Your task to perform on an android device: Open eBay Image 0: 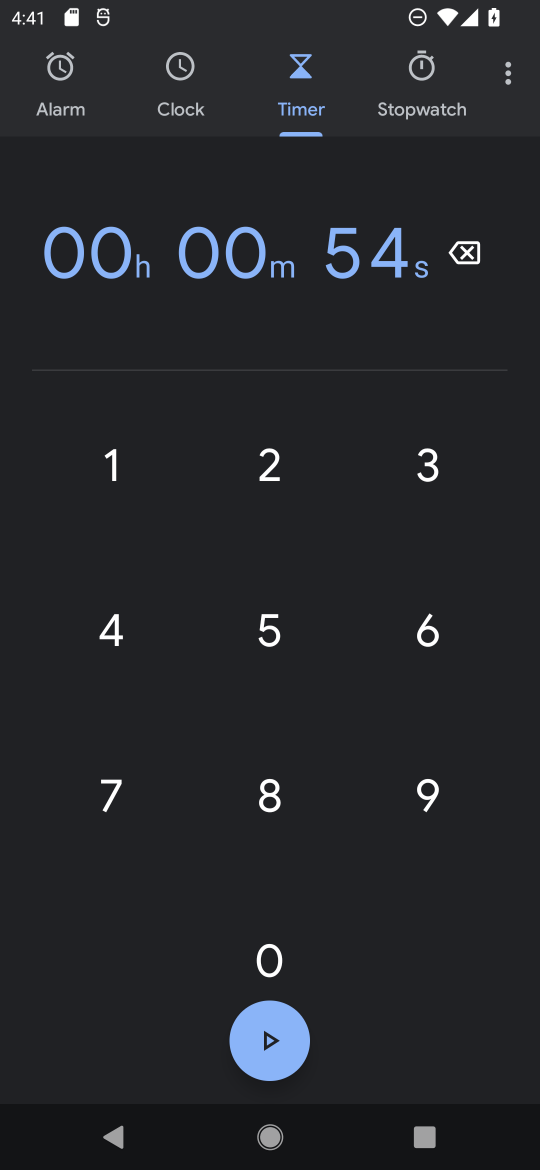
Step 0: press home button
Your task to perform on an android device: Open eBay Image 1: 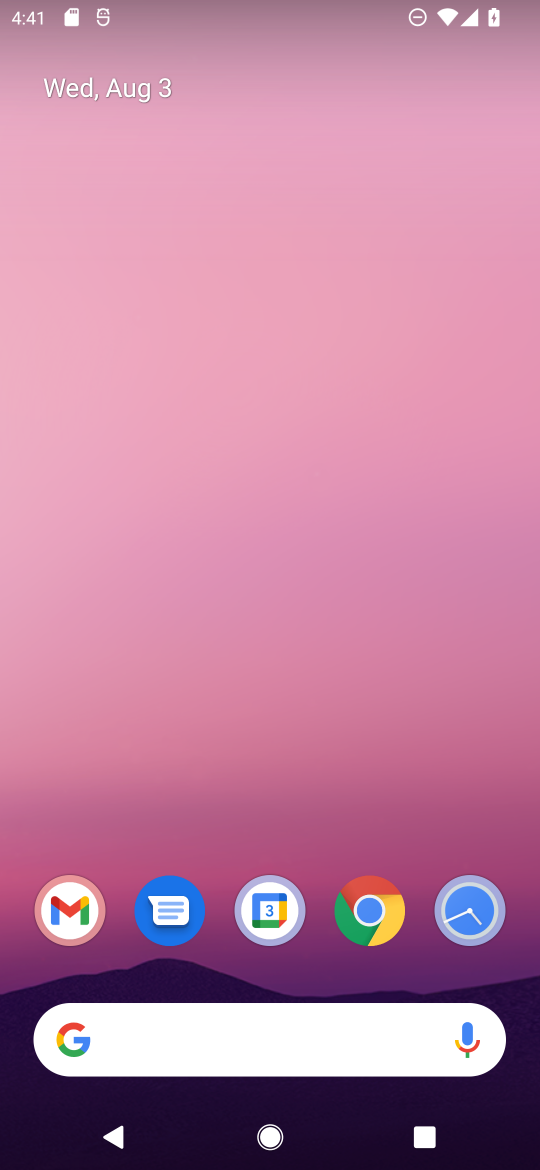
Step 1: click (195, 1050)
Your task to perform on an android device: Open eBay Image 2: 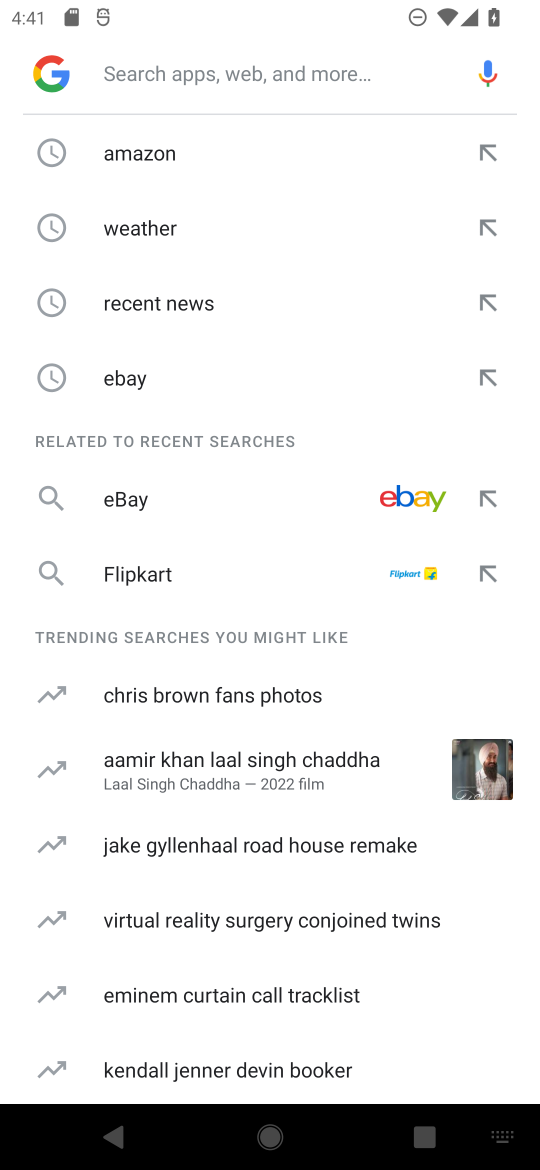
Step 2: type "eBay"
Your task to perform on an android device: Open eBay Image 3: 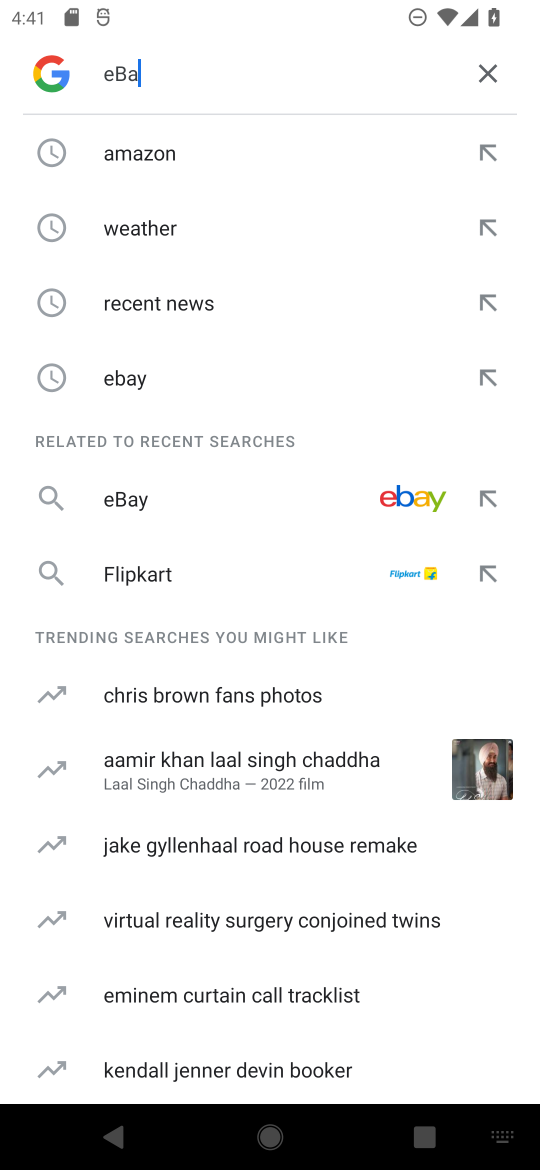
Step 3: type ""
Your task to perform on an android device: Open eBay Image 4: 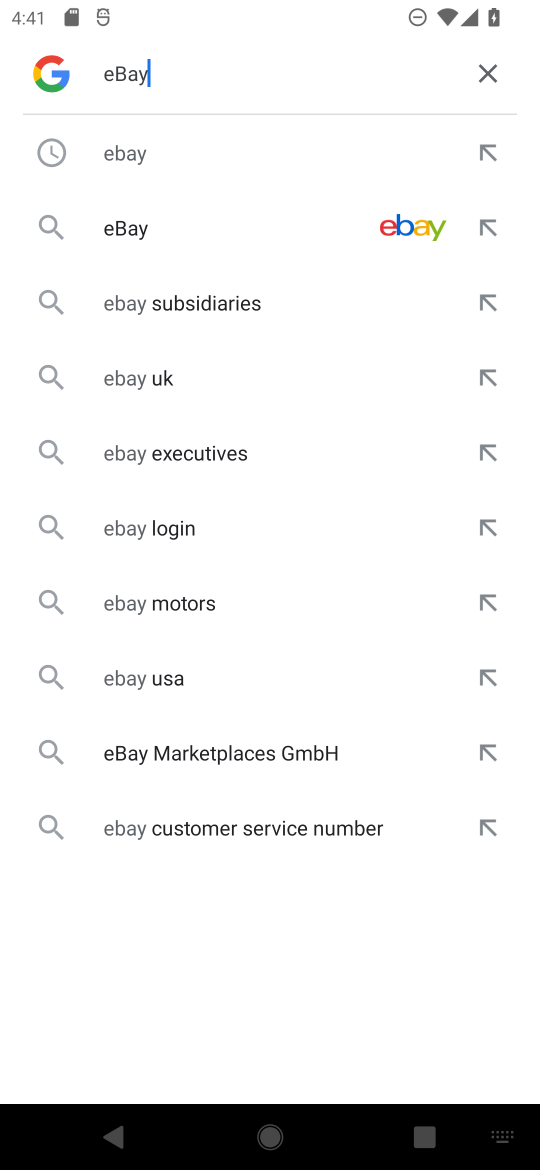
Step 4: click (149, 222)
Your task to perform on an android device: Open eBay Image 5: 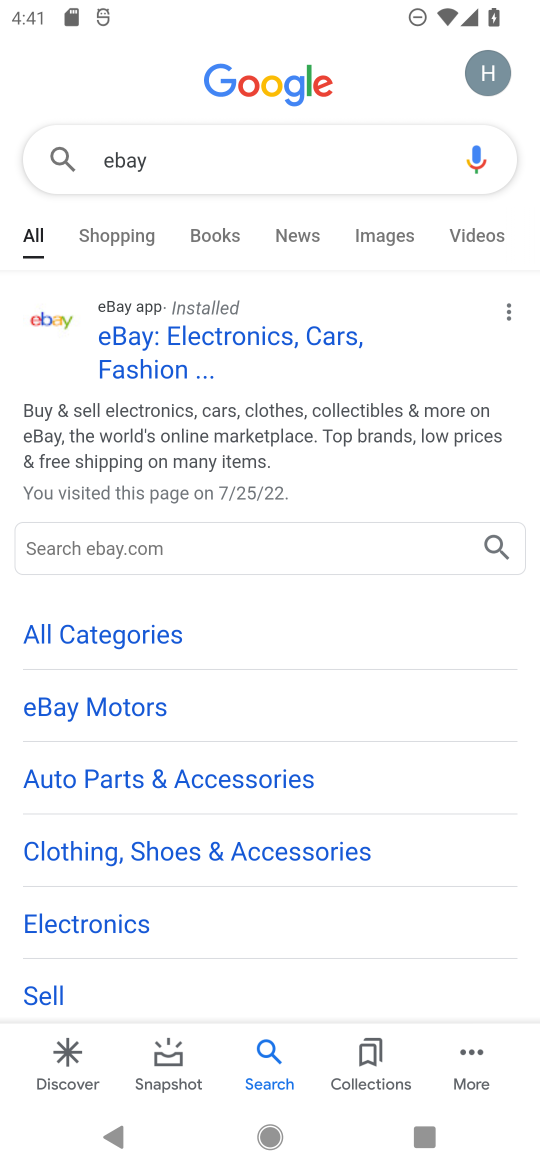
Step 5: task complete